Your task to perform on an android device: toggle data saver in the chrome app Image 0: 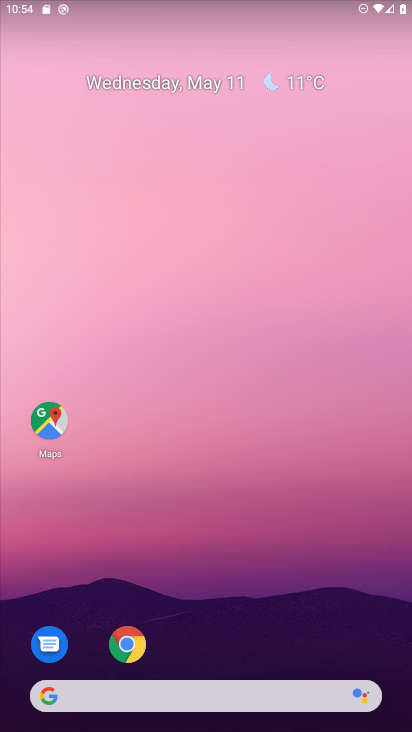
Step 0: click (138, 643)
Your task to perform on an android device: toggle data saver in the chrome app Image 1: 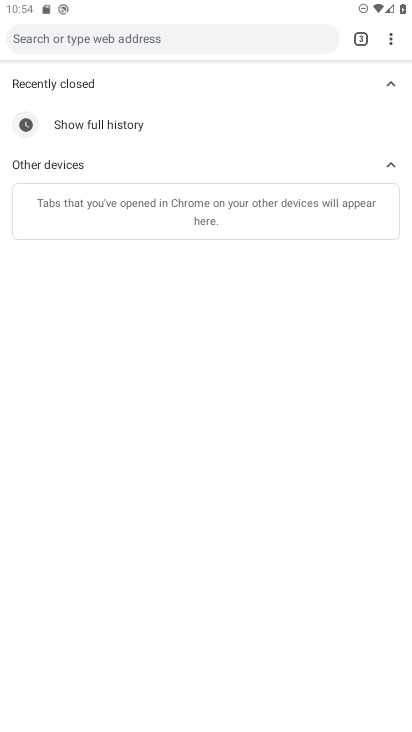
Step 1: click (392, 40)
Your task to perform on an android device: toggle data saver in the chrome app Image 2: 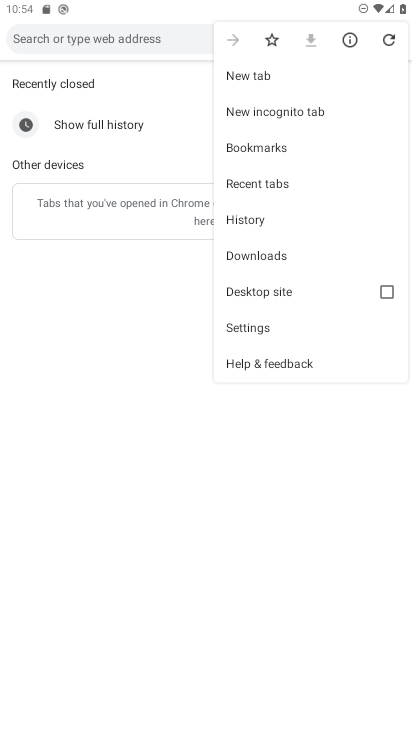
Step 2: click (248, 322)
Your task to perform on an android device: toggle data saver in the chrome app Image 3: 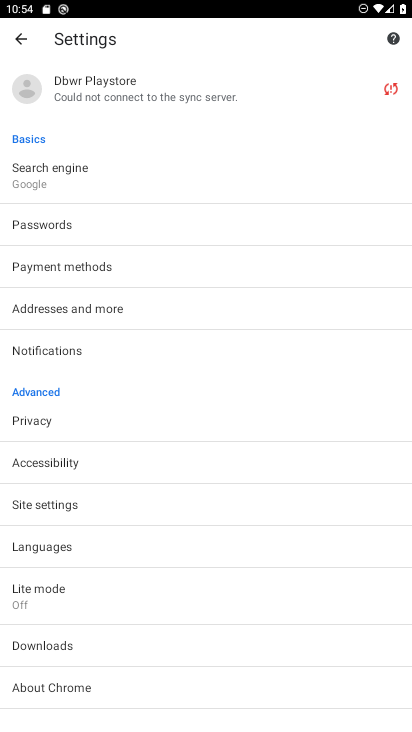
Step 3: click (34, 597)
Your task to perform on an android device: toggle data saver in the chrome app Image 4: 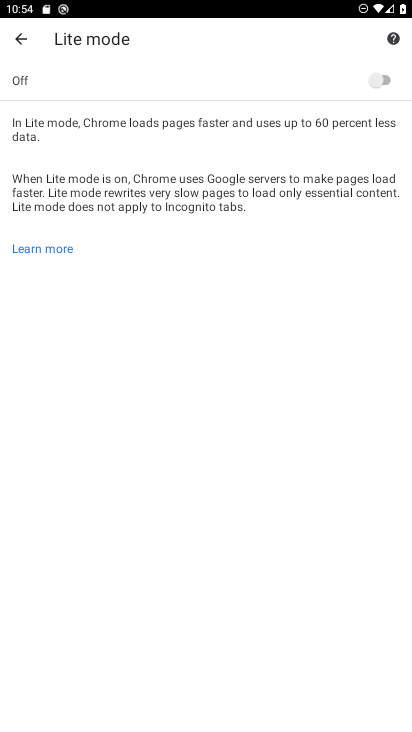
Step 4: click (379, 71)
Your task to perform on an android device: toggle data saver in the chrome app Image 5: 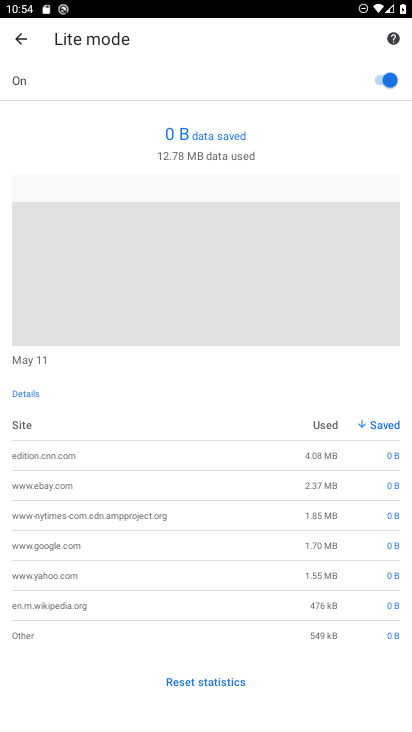
Step 5: task complete